Your task to perform on an android device: What's the weather? Image 0: 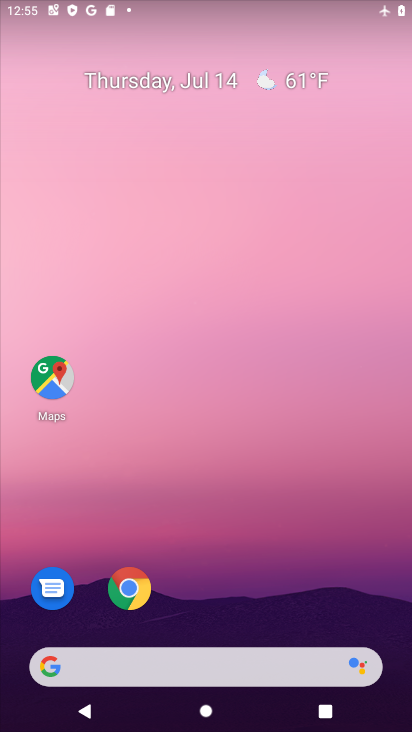
Step 0: click (178, 674)
Your task to perform on an android device: What's the weather? Image 1: 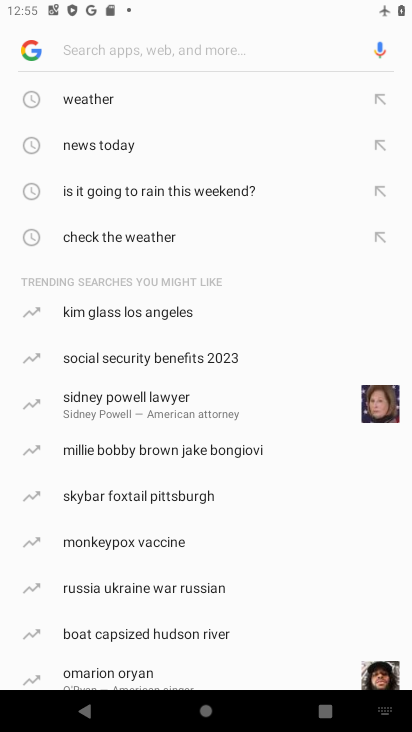
Step 1: press home button
Your task to perform on an android device: What's the weather? Image 2: 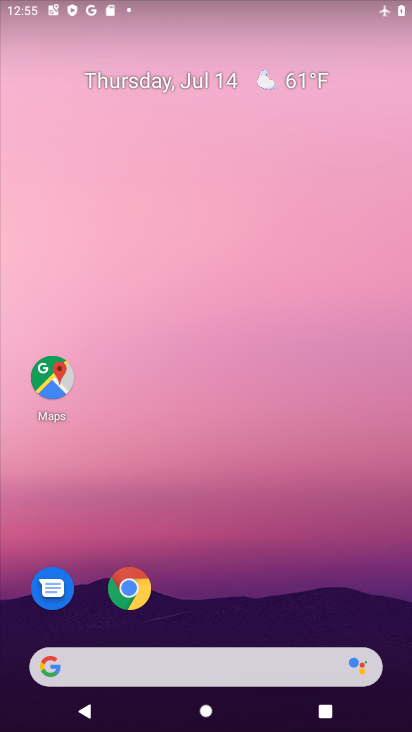
Step 2: click (279, 70)
Your task to perform on an android device: What's the weather? Image 3: 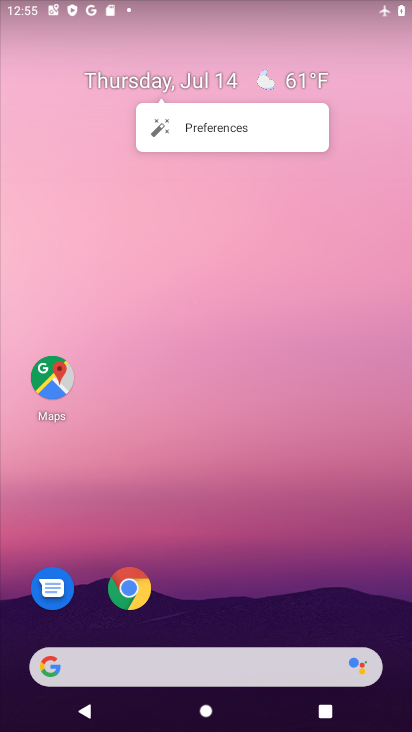
Step 3: click (286, 77)
Your task to perform on an android device: What's the weather? Image 4: 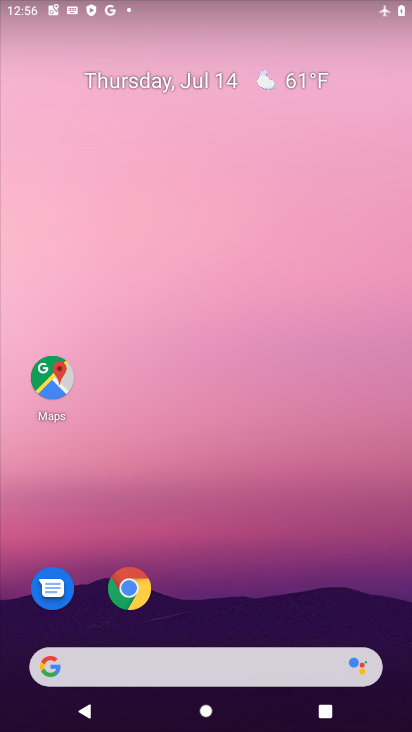
Step 4: click (307, 83)
Your task to perform on an android device: What's the weather? Image 5: 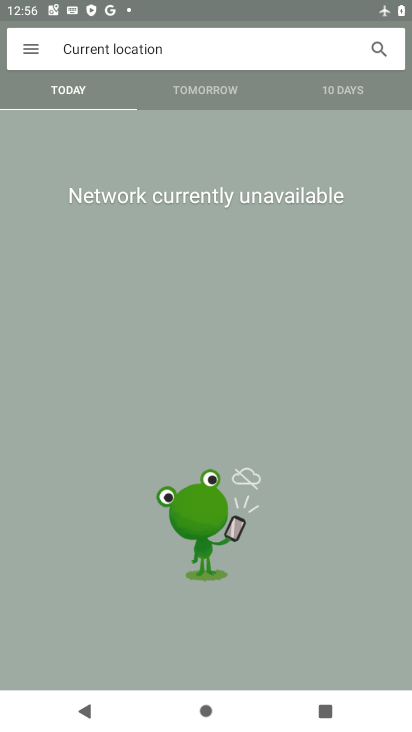
Step 5: task complete